Your task to perform on an android device: Open Google Image 0: 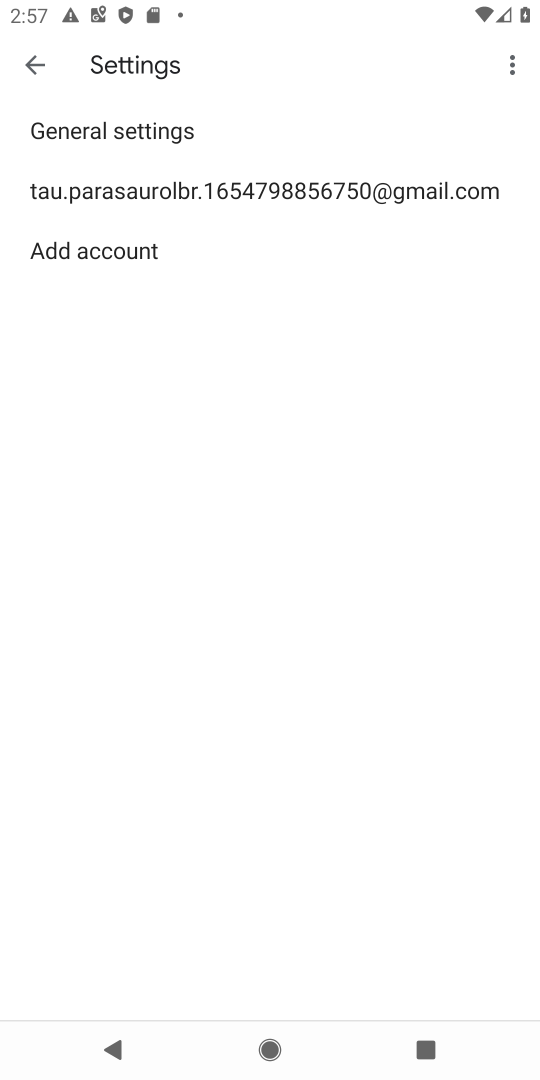
Step 0: press back button
Your task to perform on an android device: Open Google Image 1: 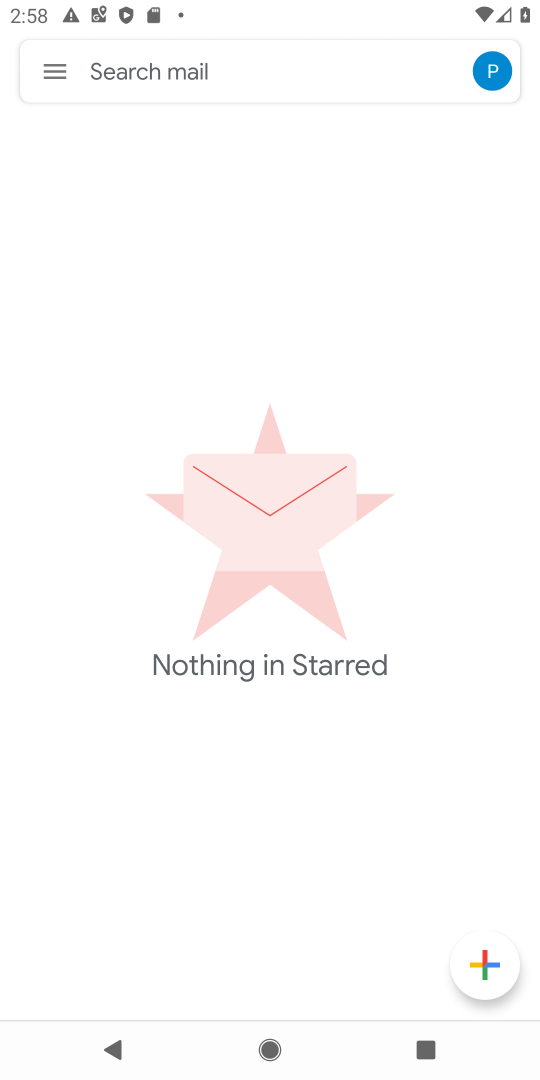
Step 1: press back button
Your task to perform on an android device: Open Google Image 2: 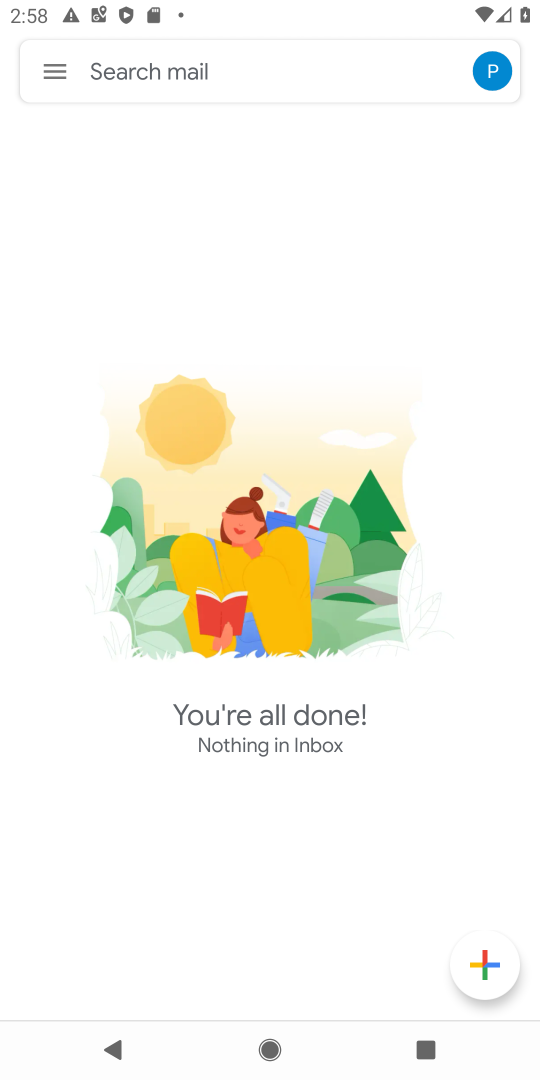
Step 2: press back button
Your task to perform on an android device: Open Google Image 3: 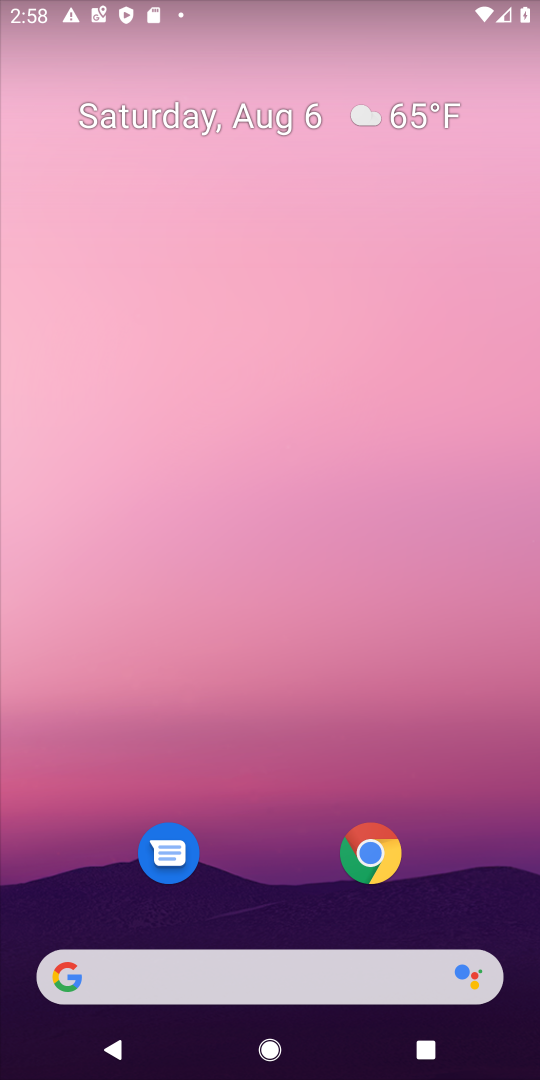
Step 3: click (318, 986)
Your task to perform on an android device: Open Google Image 4: 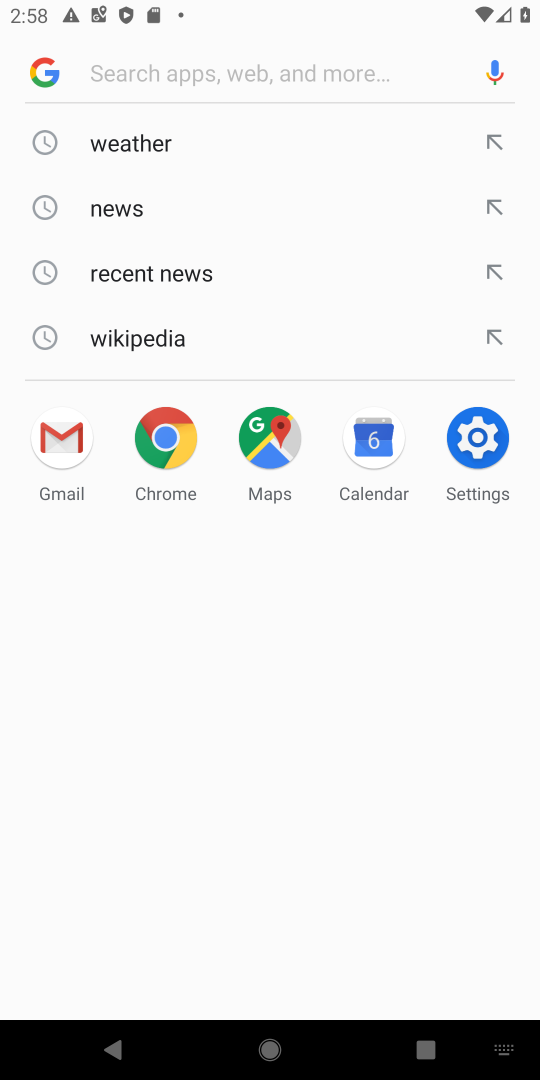
Step 4: task complete